Your task to perform on an android device: Empty the shopping cart on target. Image 0: 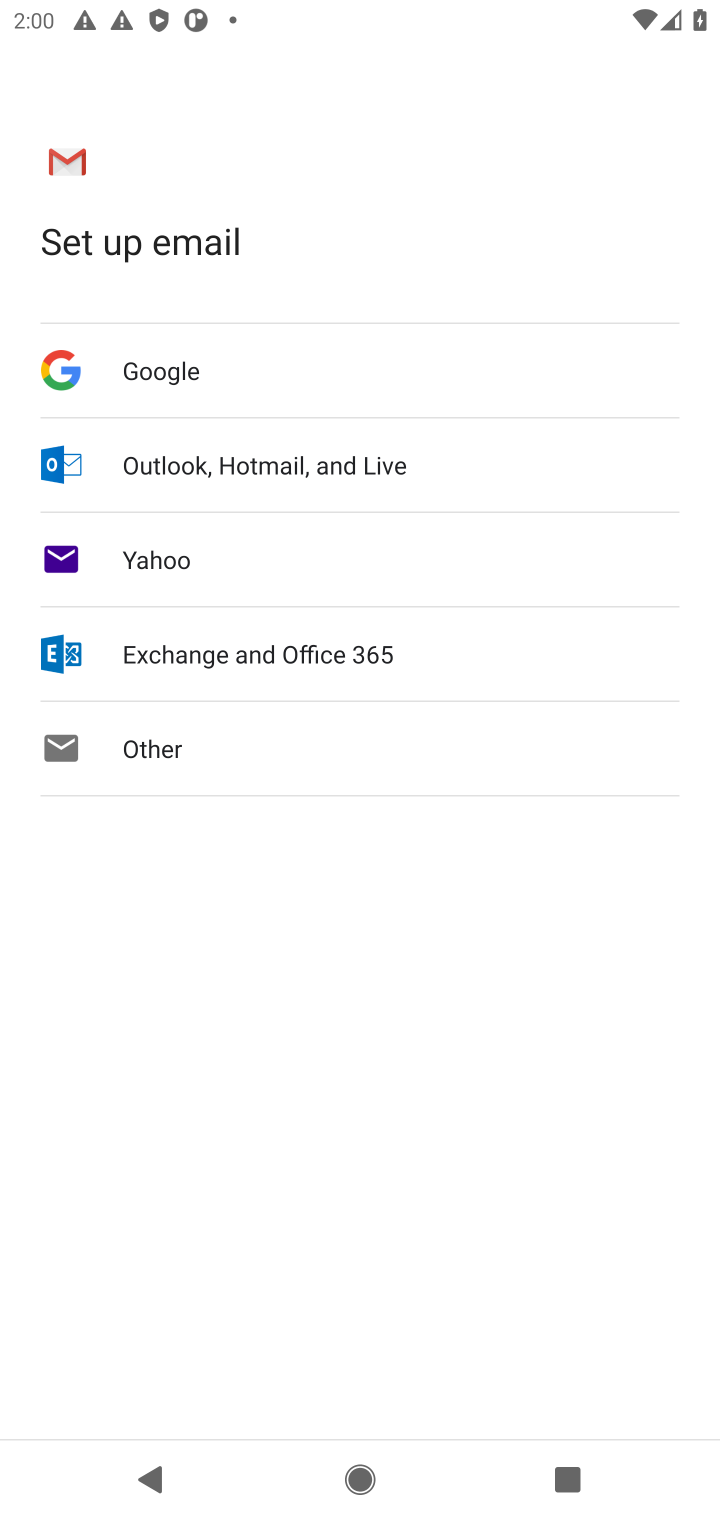
Step 0: press home button
Your task to perform on an android device: Empty the shopping cart on target. Image 1: 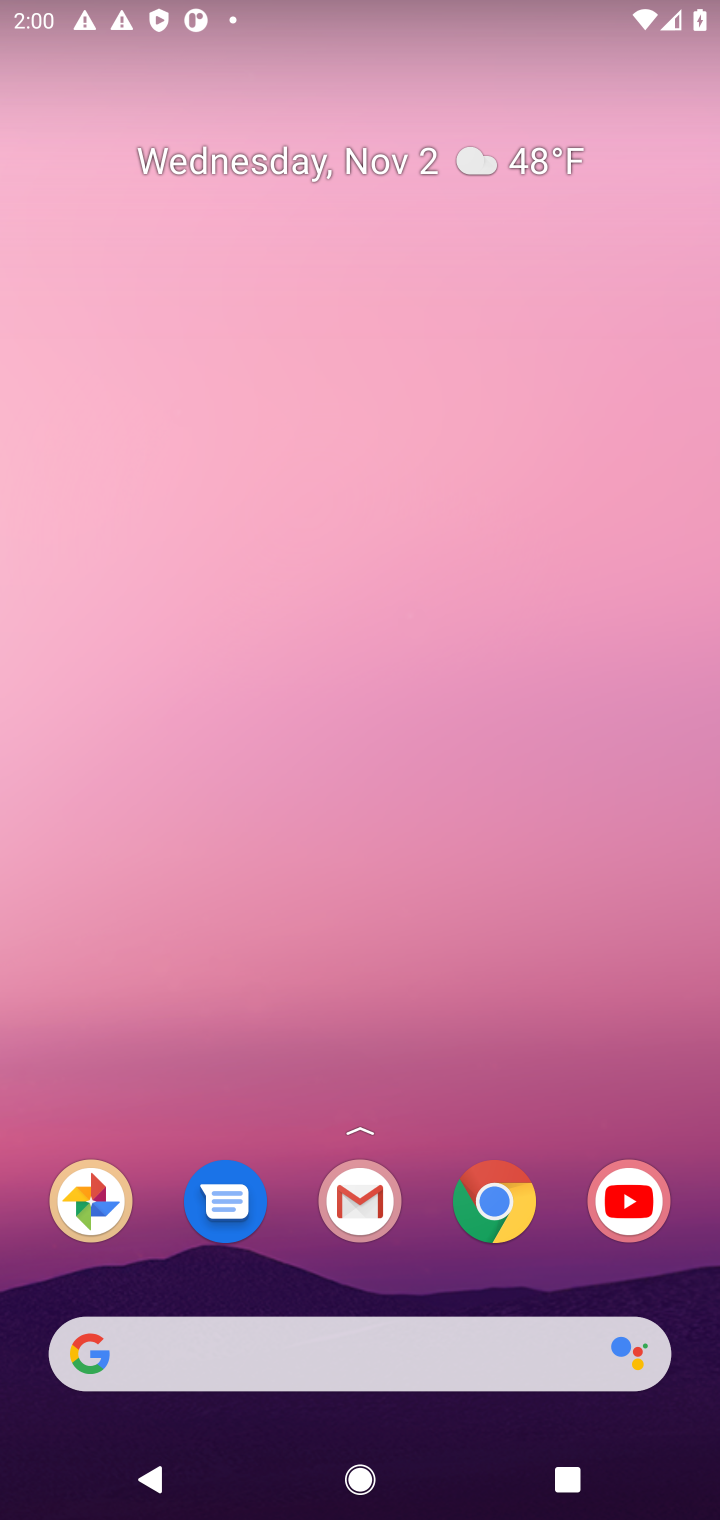
Step 1: click (506, 1208)
Your task to perform on an android device: Empty the shopping cart on target. Image 2: 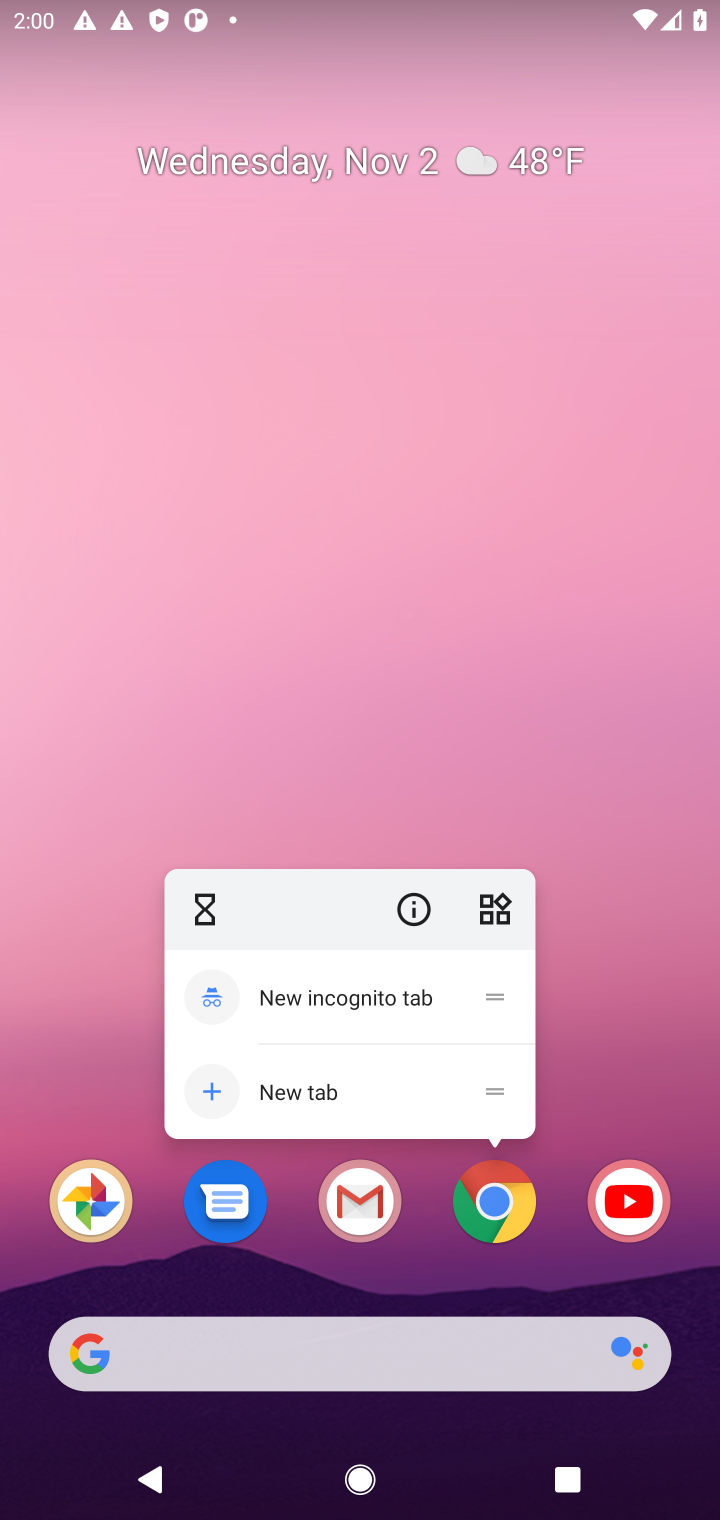
Step 2: click (506, 1208)
Your task to perform on an android device: Empty the shopping cart on target. Image 3: 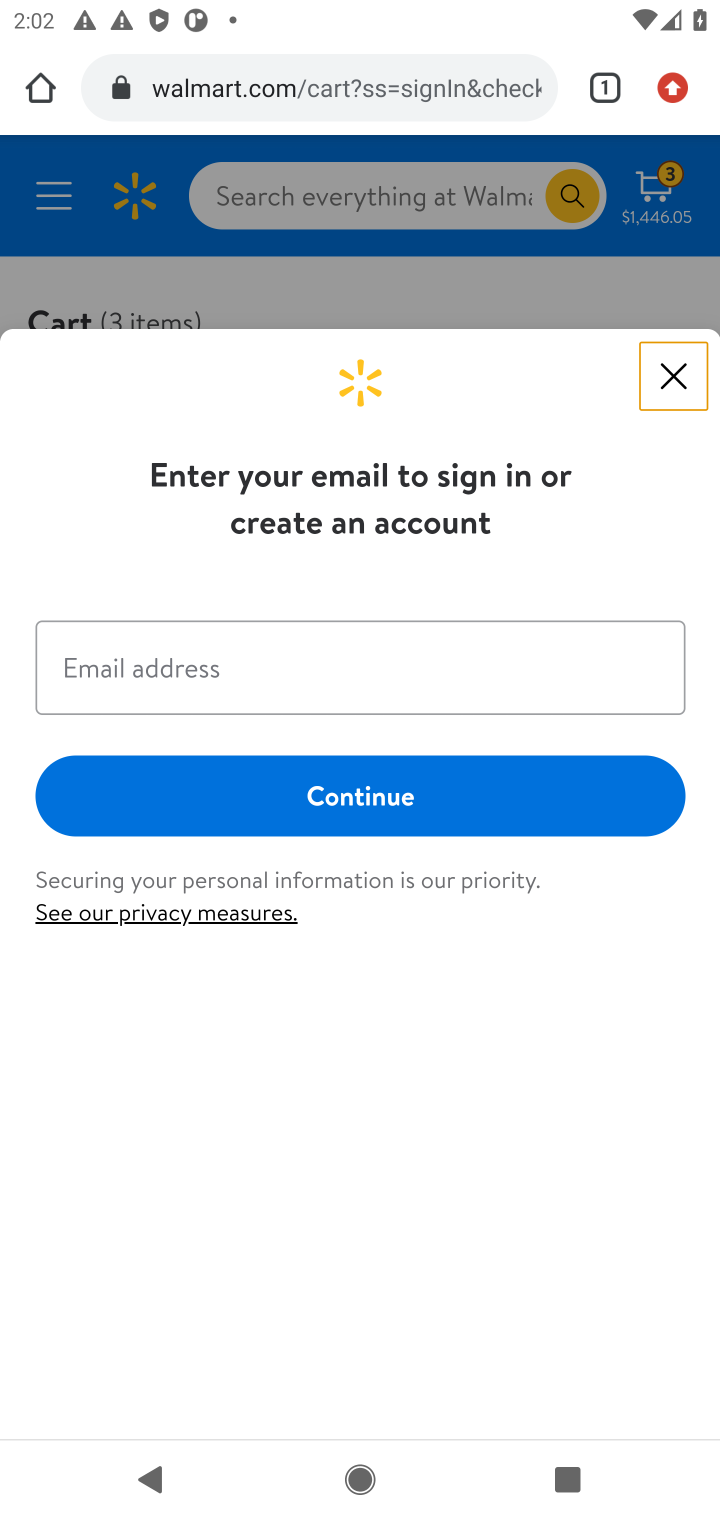
Step 3: click (672, 375)
Your task to perform on an android device: Empty the shopping cart on target. Image 4: 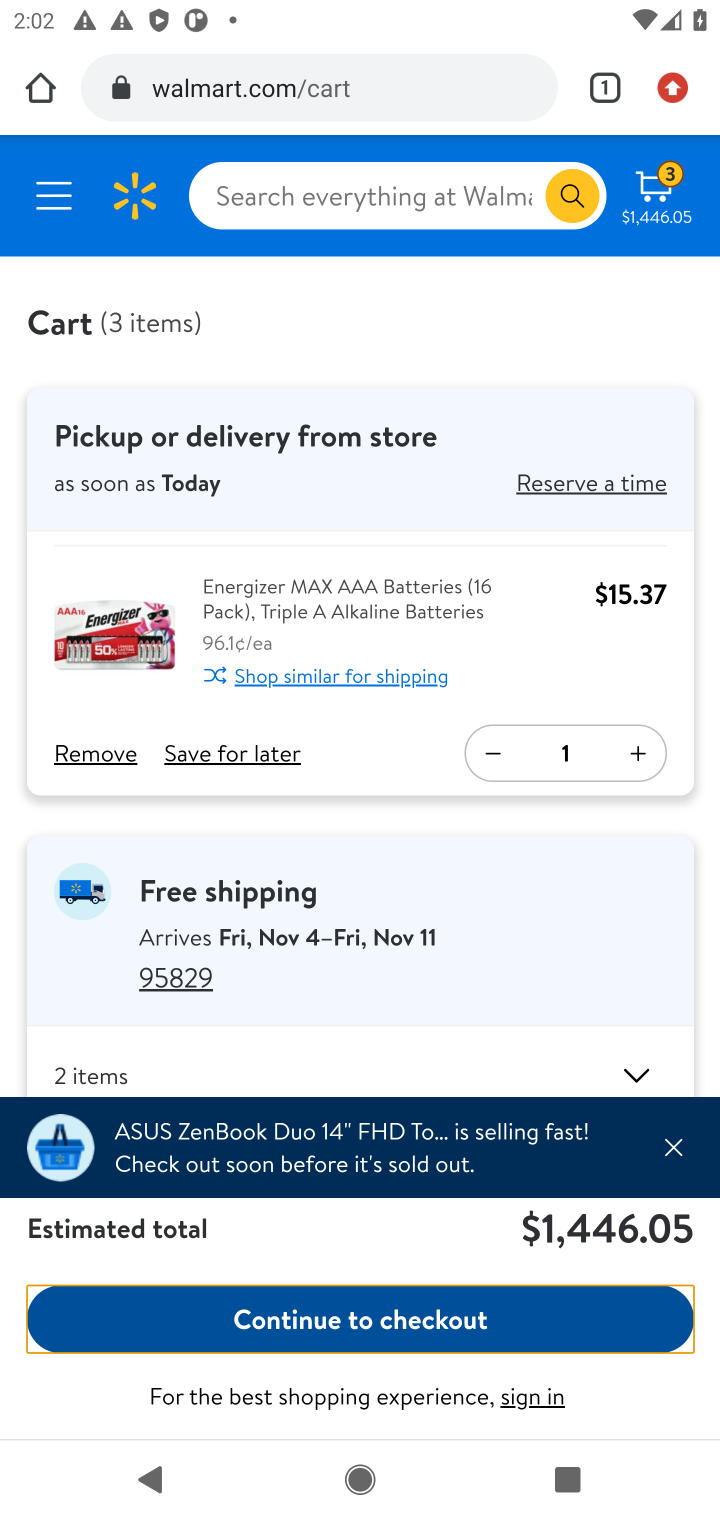
Step 4: click (314, 82)
Your task to perform on an android device: Empty the shopping cart on target. Image 5: 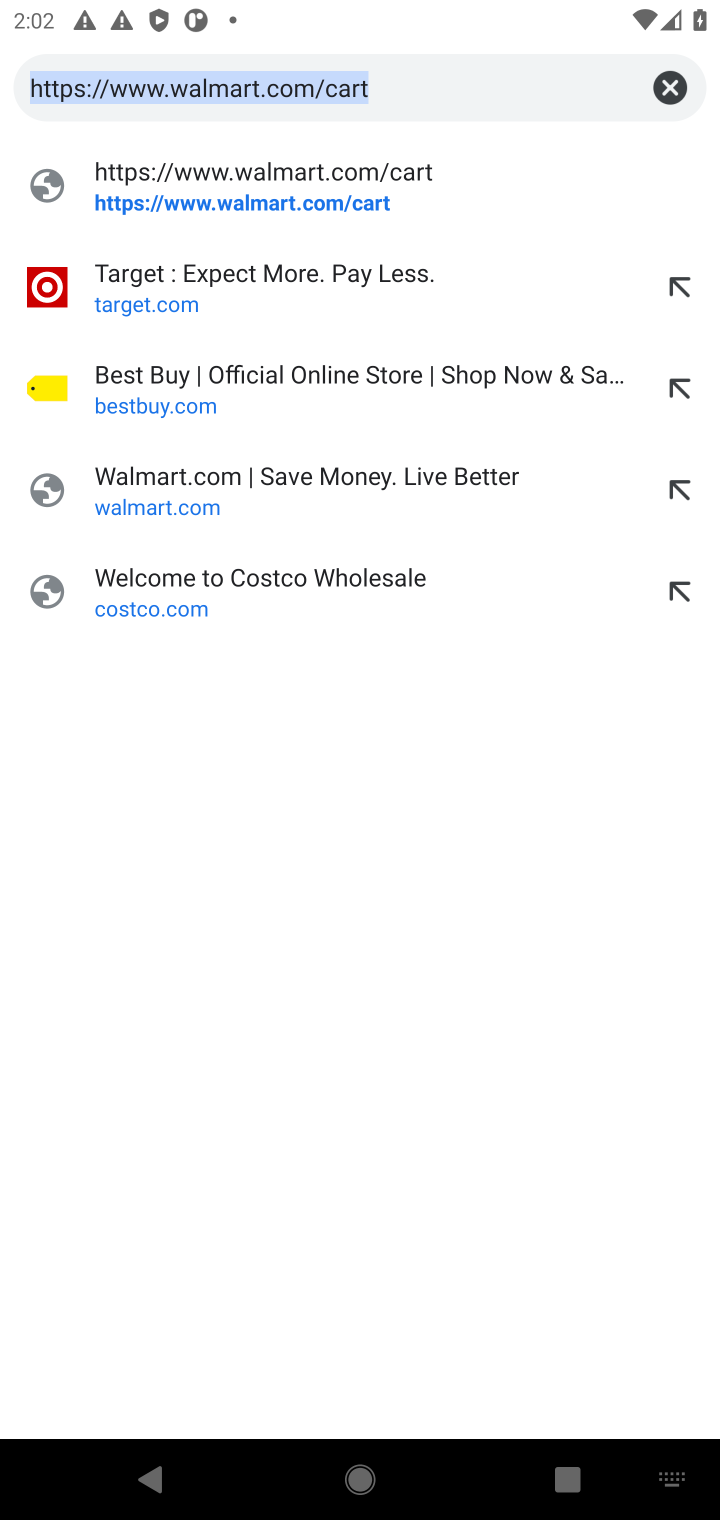
Step 5: click (234, 273)
Your task to perform on an android device: Empty the shopping cart on target. Image 6: 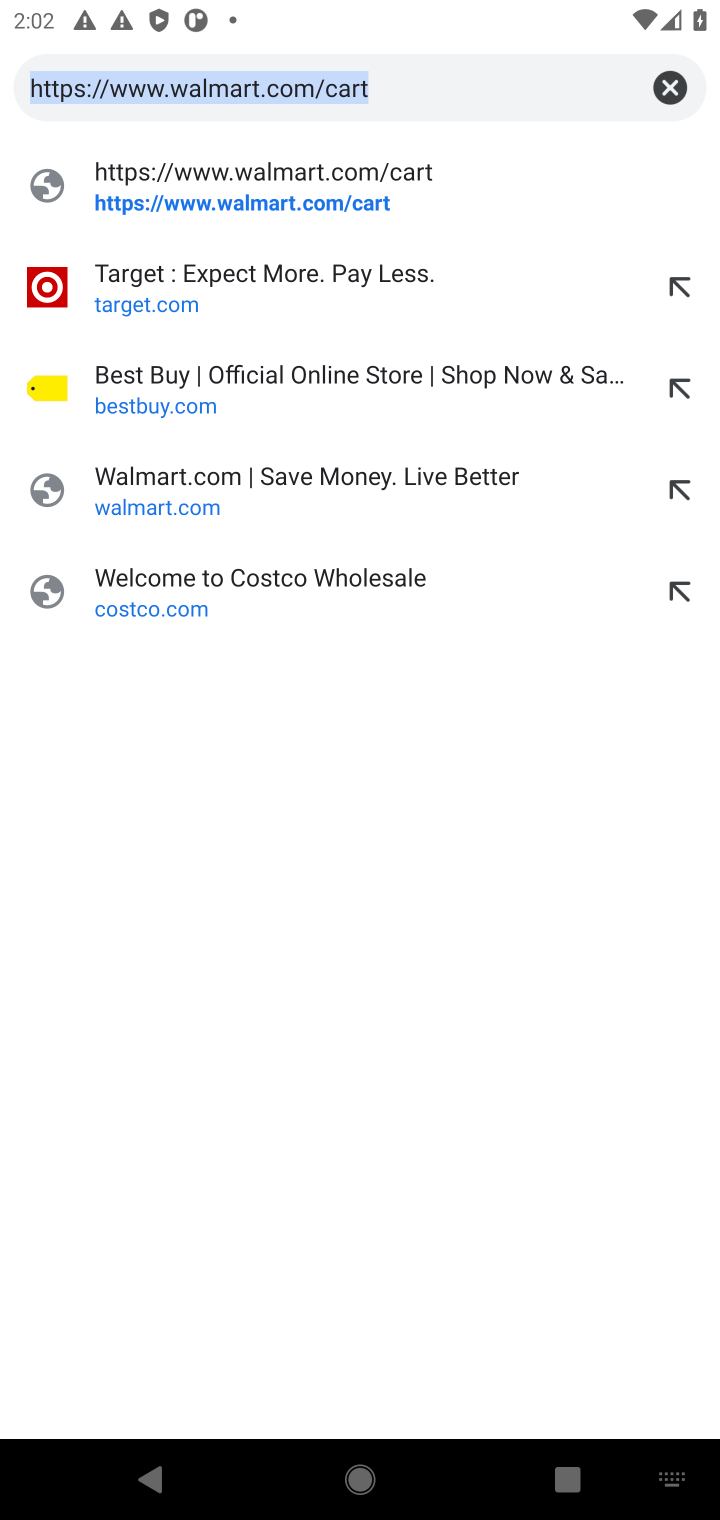
Step 6: click (142, 274)
Your task to perform on an android device: Empty the shopping cart on target. Image 7: 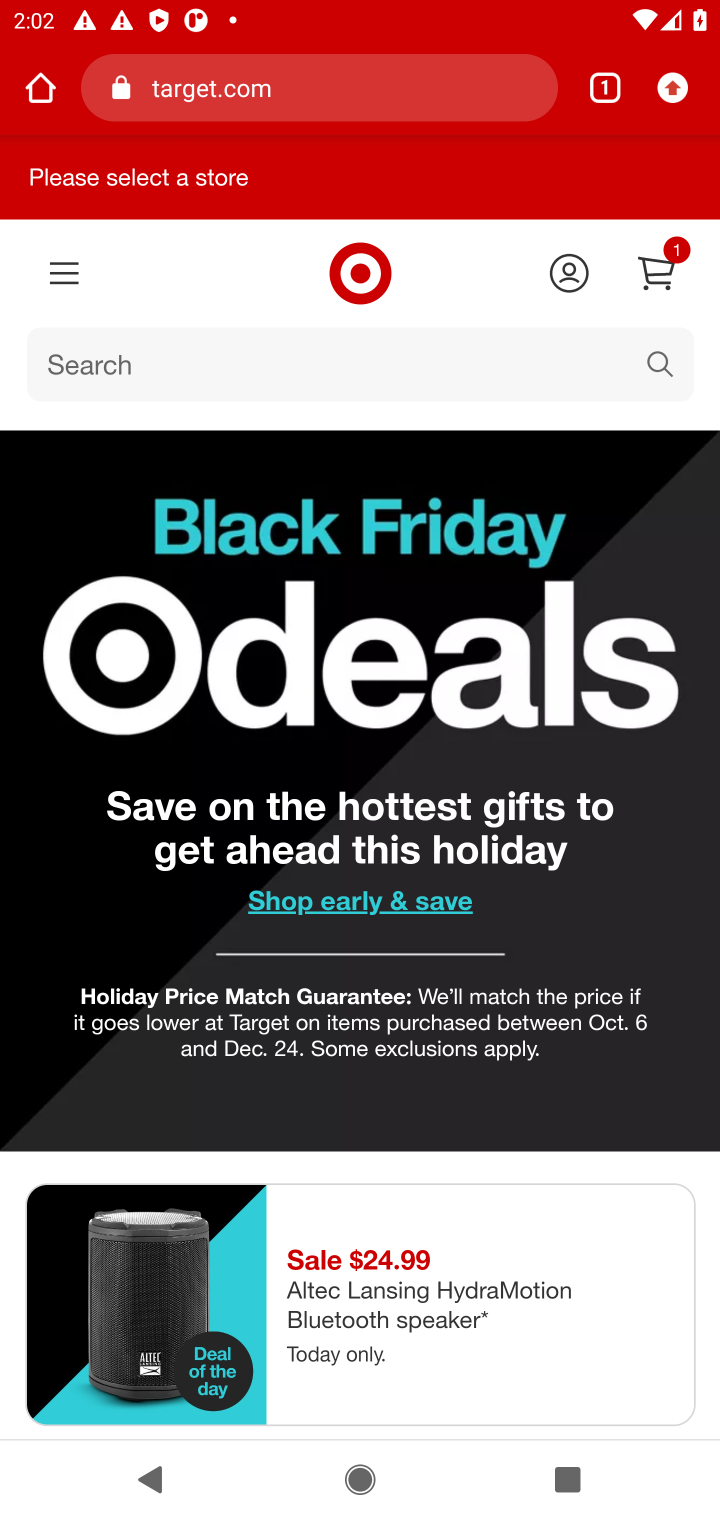
Step 7: click (646, 357)
Your task to perform on an android device: Empty the shopping cart on target. Image 8: 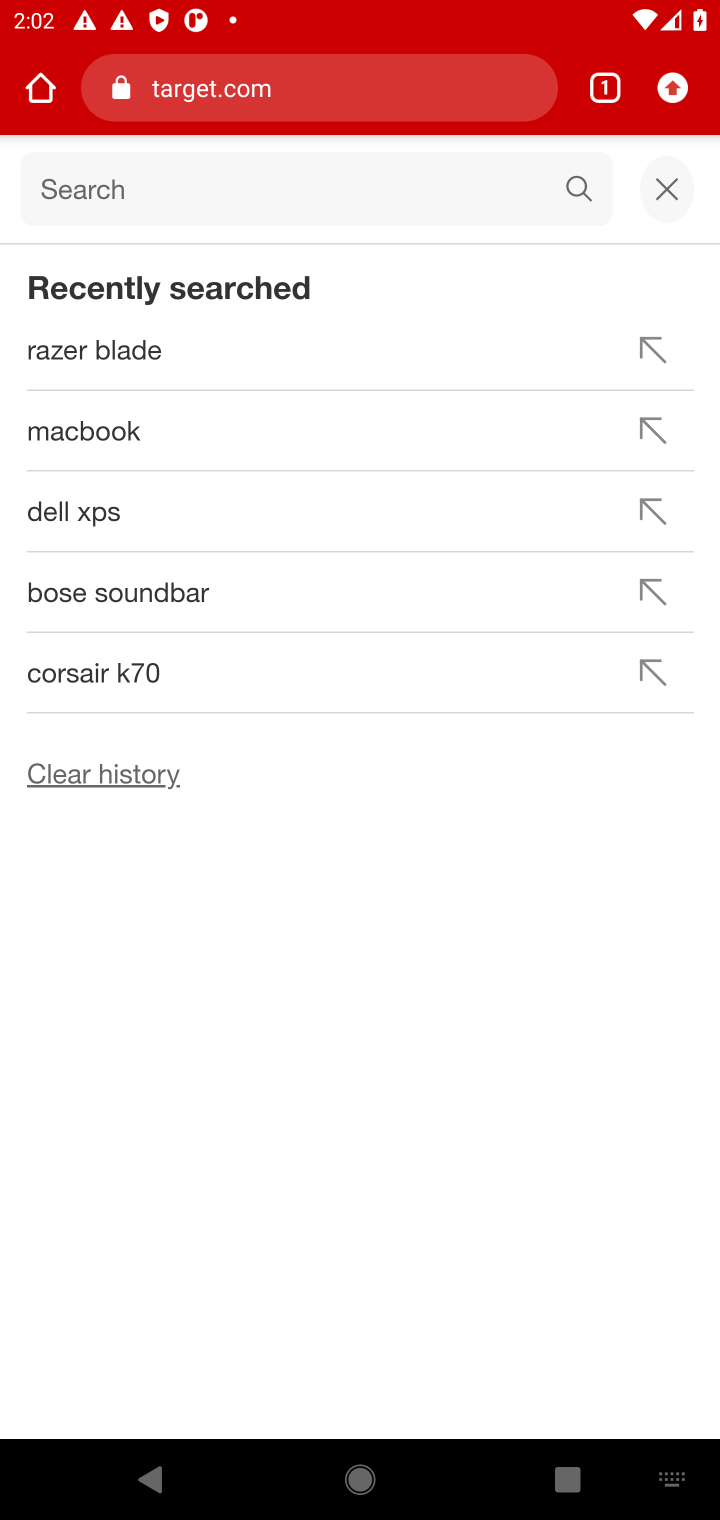
Step 8: click (671, 190)
Your task to perform on an android device: Empty the shopping cart on target. Image 9: 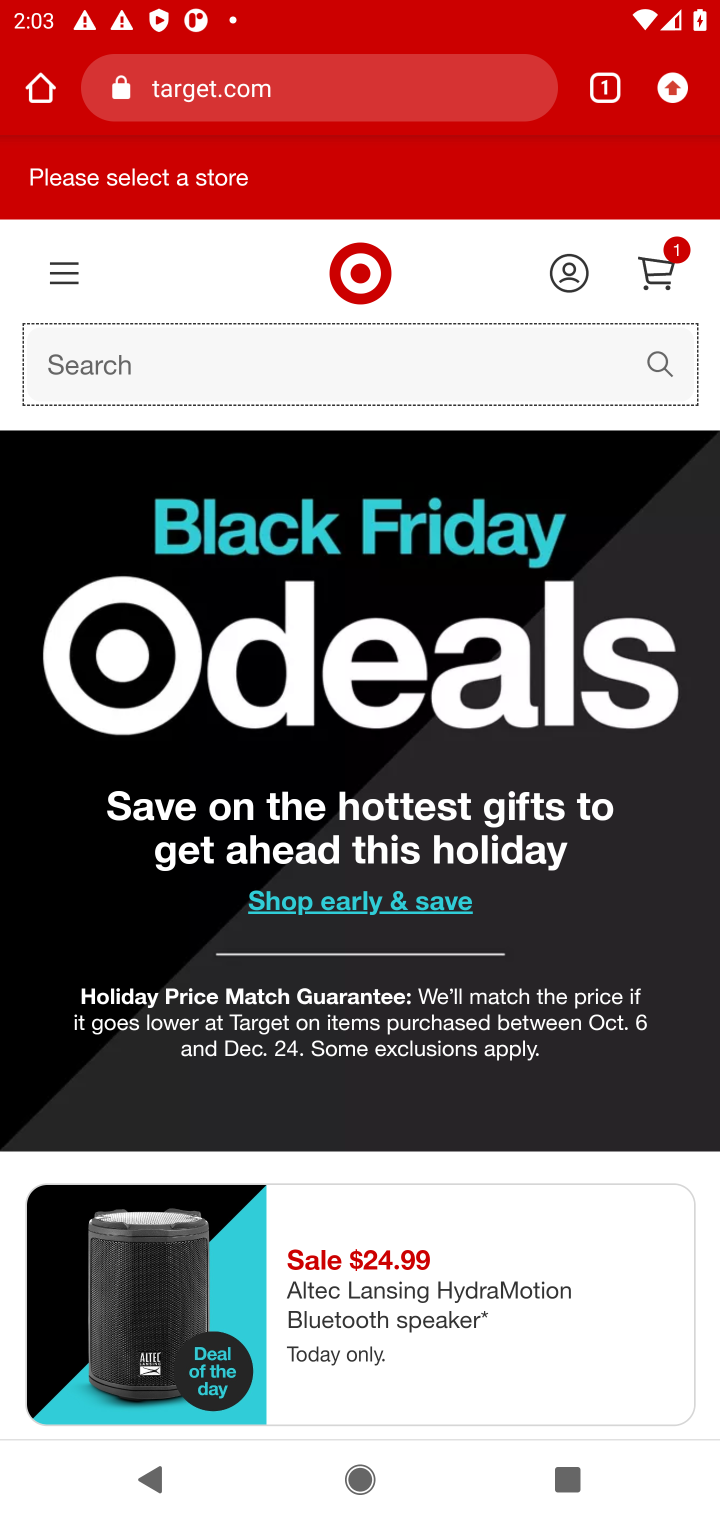
Step 9: click (655, 269)
Your task to perform on an android device: Empty the shopping cart on target. Image 10: 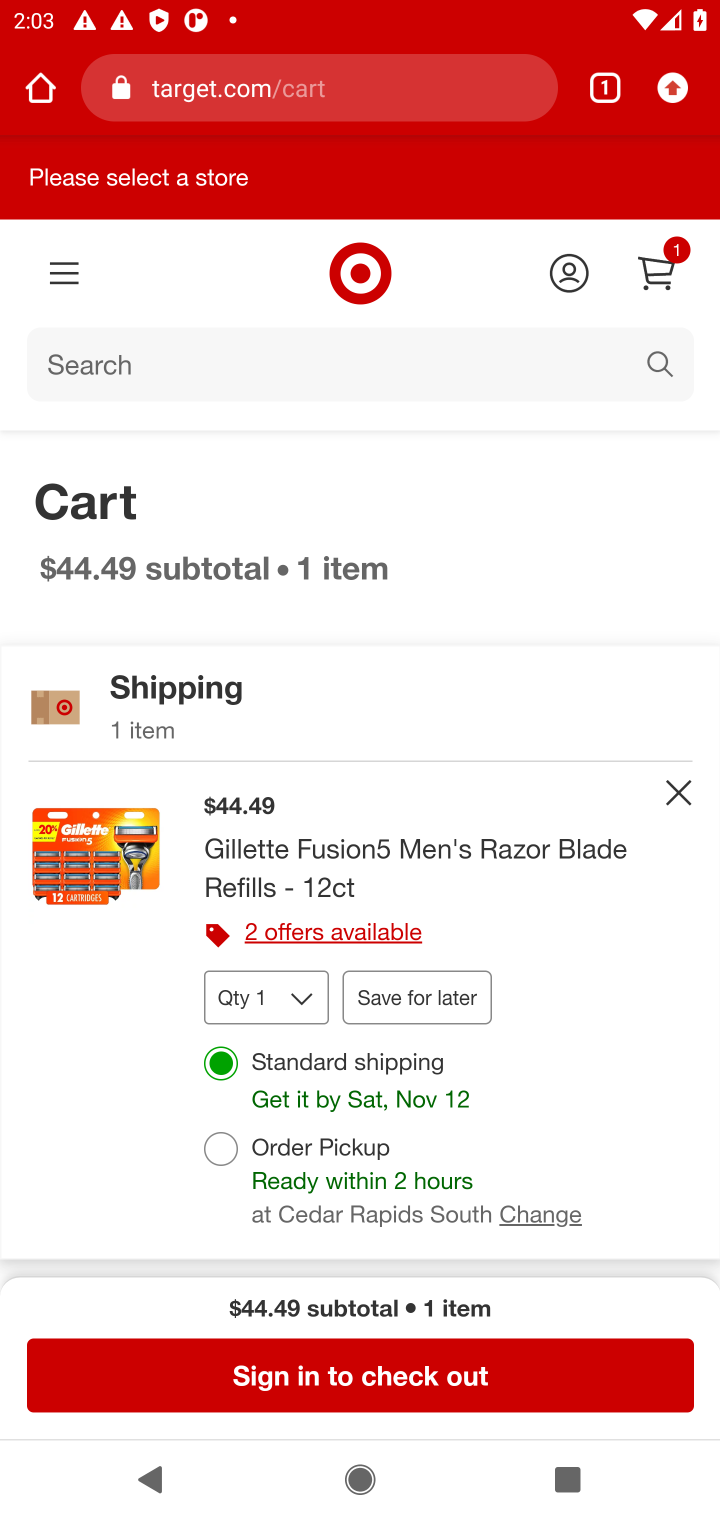
Step 10: click (682, 792)
Your task to perform on an android device: Empty the shopping cart on target. Image 11: 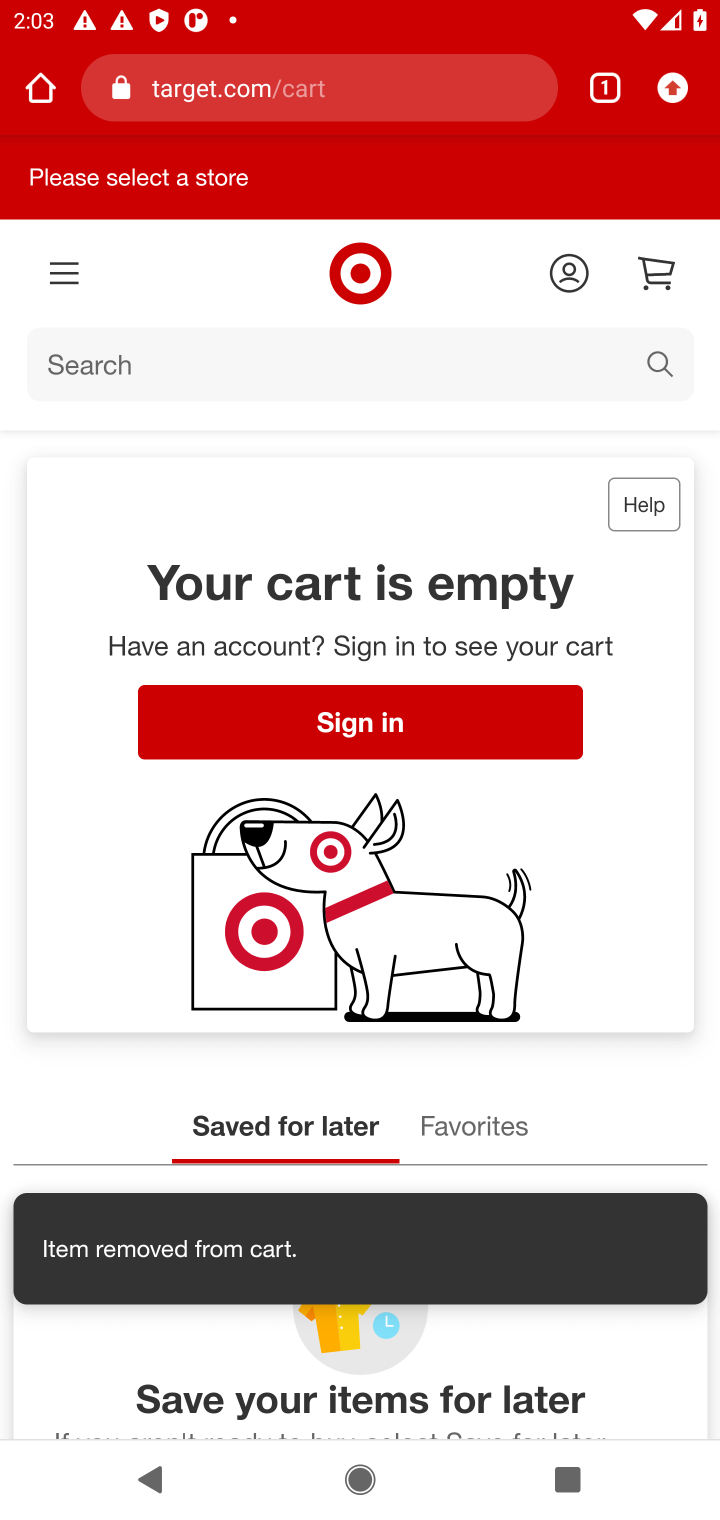
Step 11: task complete